Your task to perform on an android device: change your default location settings in chrome Image 0: 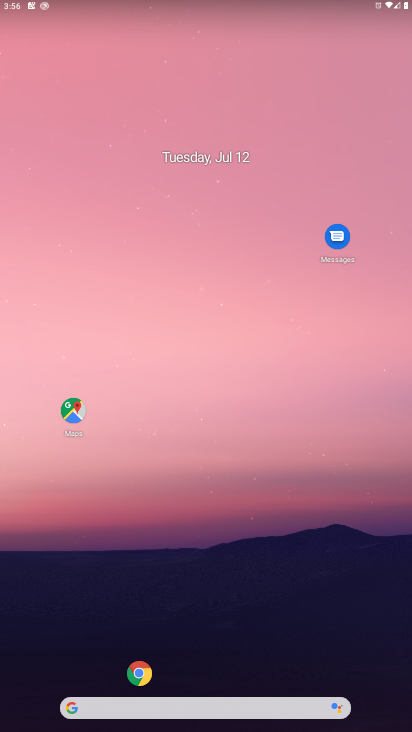
Step 0: click (138, 682)
Your task to perform on an android device: change your default location settings in chrome Image 1: 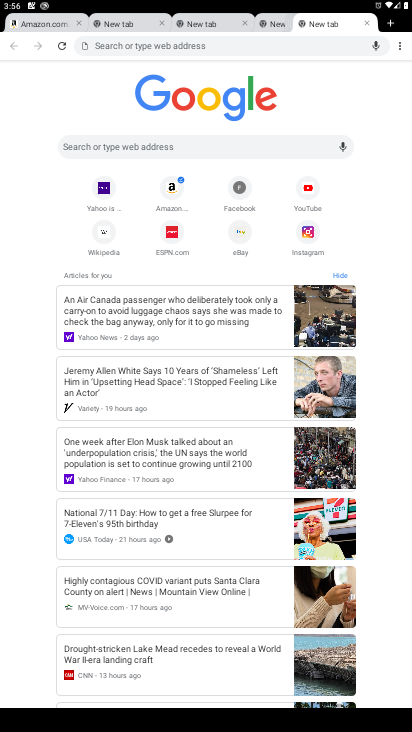
Step 1: click (399, 47)
Your task to perform on an android device: change your default location settings in chrome Image 2: 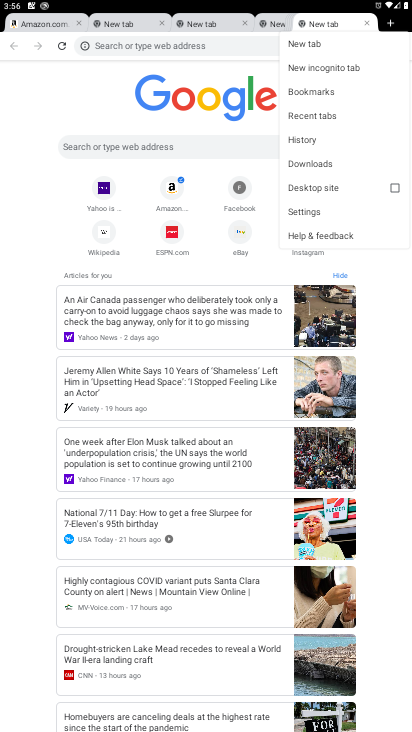
Step 2: click (299, 206)
Your task to perform on an android device: change your default location settings in chrome Image 3: 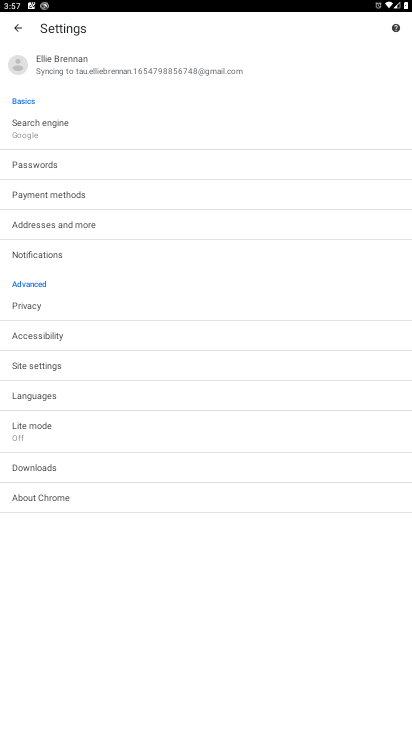
Step 3: click (30, 362)
Your task to perform on an android device: change your default location settings in chrome Image 4: 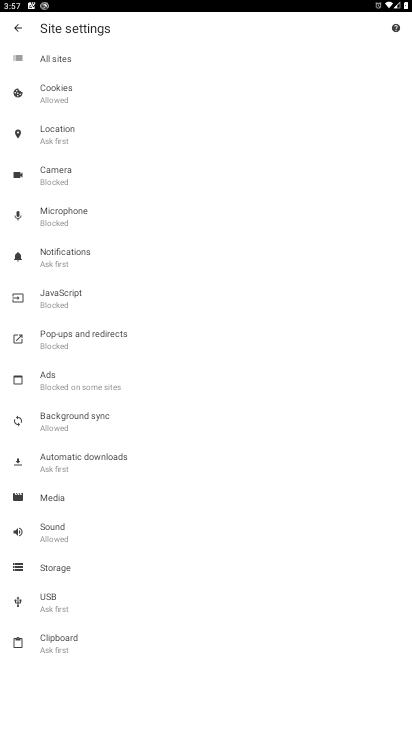
Step 4: click (49, 128)
Your task to perform on an android device: change your default location settings in chrome Image 5: 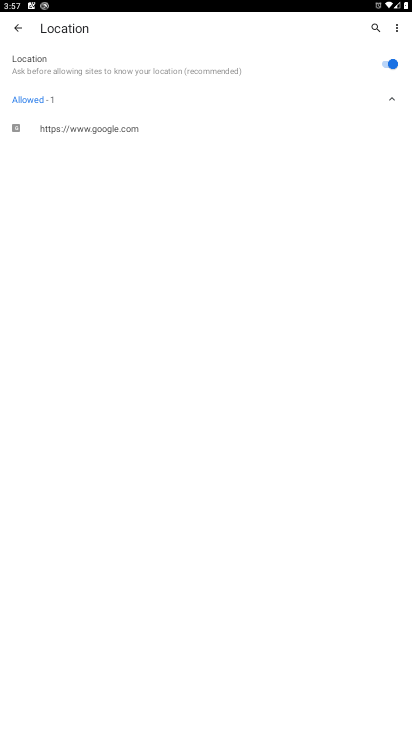
Step 5: click (397, 96)
Your task to perform on an android device: change your default location settings in chrome Image 6: 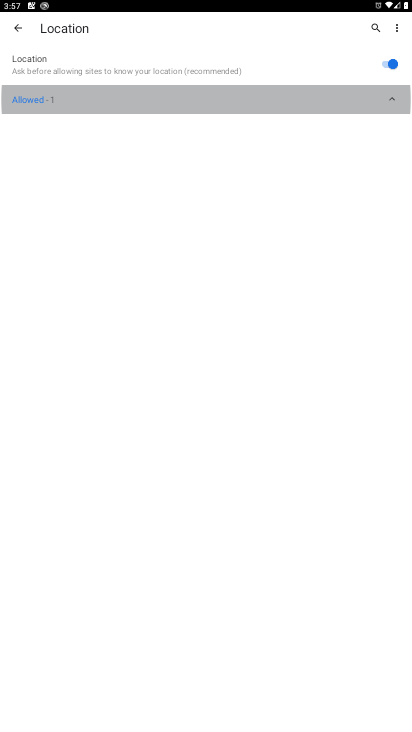
Step 6: click (391, 98)
Your task to perform on an android device: change your default location settings in chrome Image 7: 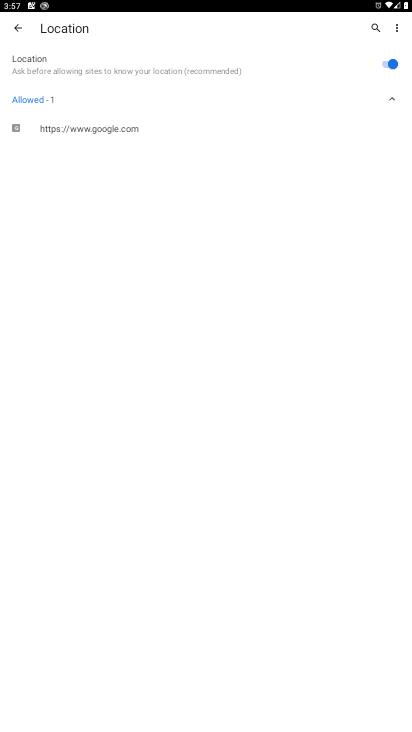
Step 7: click (391, 99)
Your task to perform on an android device: change your default location settings in chrome Image 8: 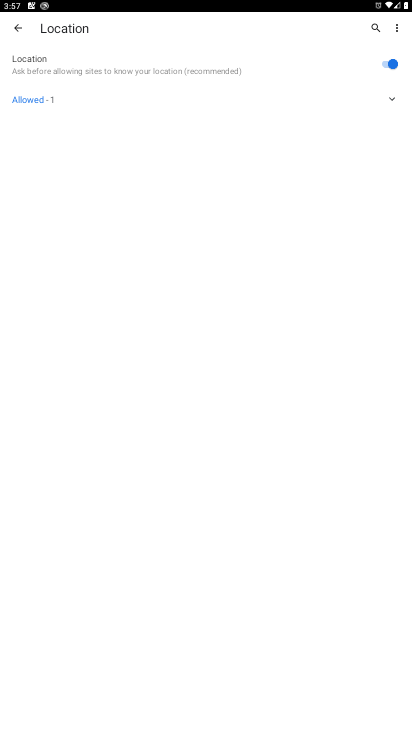
Step 8: click (389, 66)
Your task to perform on an android device: change your default location settings in chrome Image 9: 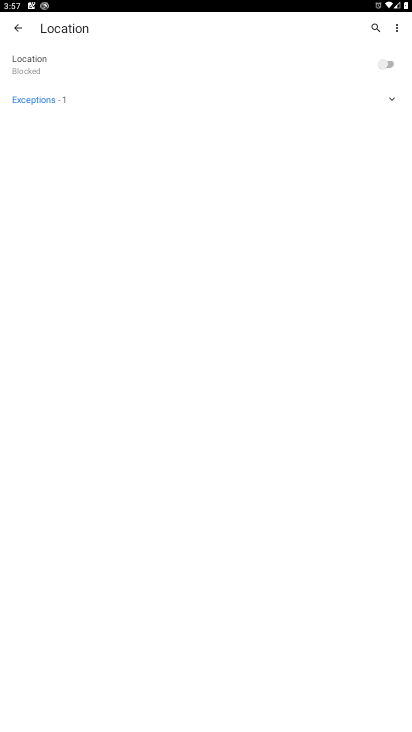
Step 9: task complete